Your task to perform on an android device: Toggle the flashlight Image 0: 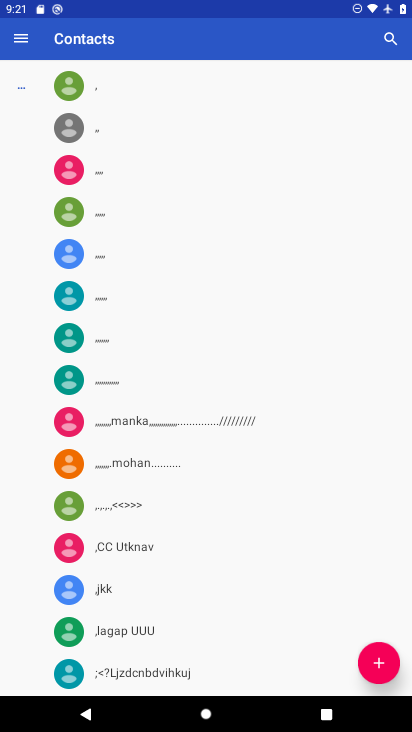
Step 0: press home button
Your task to perform on an android device: Toggle the flashlight Image 1: 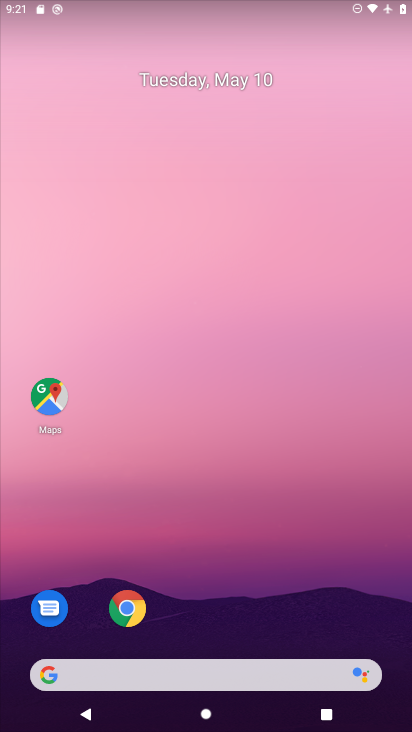
Step 1: drag from (272, 579) to (273, 191)
Your task to perform on an android device: Toggle the flashlight Image 2: 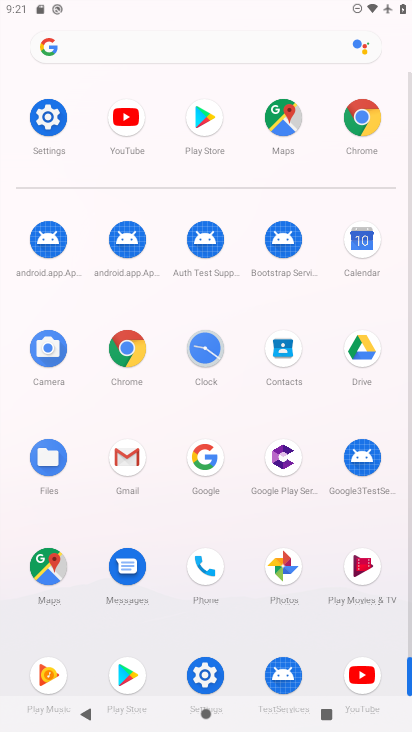
Step 2: click (54, 112)
Your task to perform on an android device: Toggle the flashlight Image 3: 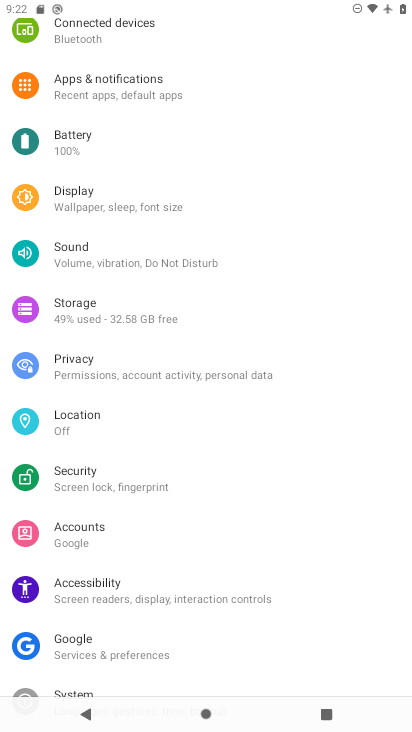
Step 3: task complete